Your task to perform on an android device: Find coffee shops on Maps Image 0: 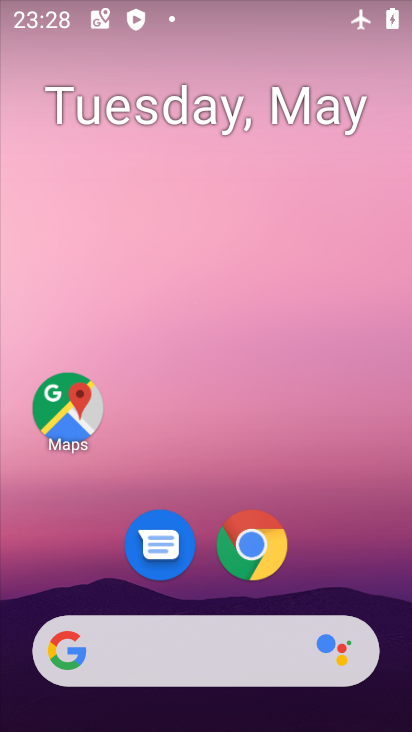
Step 0: click (66, 407)
Your task to perform on an android device: Find coffee shops on Maps Image 1: 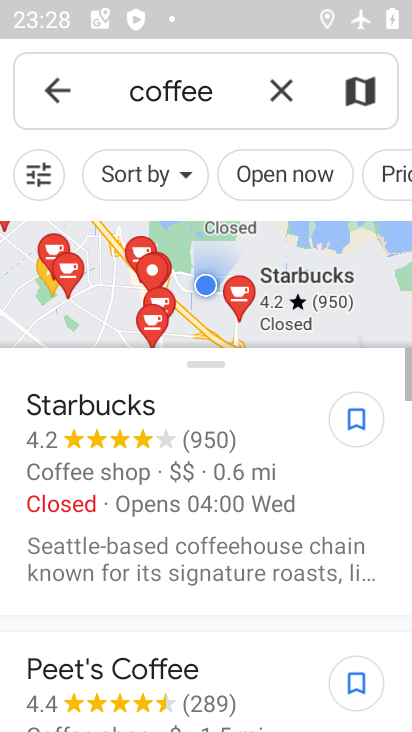
Step 1: click (266, 95)
Your task to perform on an android device: Find coffee shops on Maps Image 2: 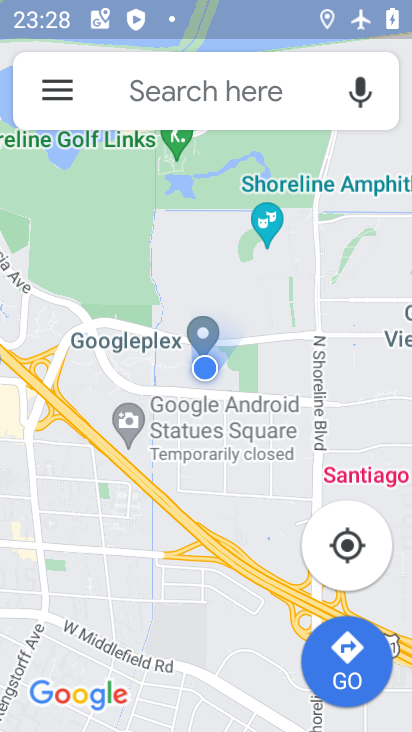
Step 2: type "coffee  shops"
Your task to perform on an android device: Find coffee shops on Maps Image 3: 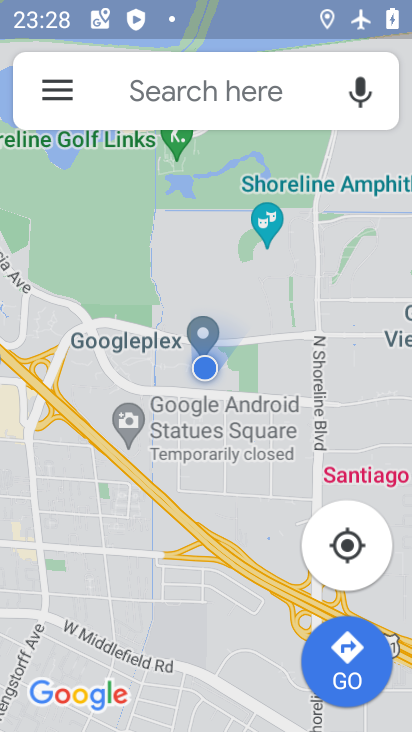
Step 3: click (219, 91)
Your task to perform on an android device: Find coffee shops on Maps Image 4: 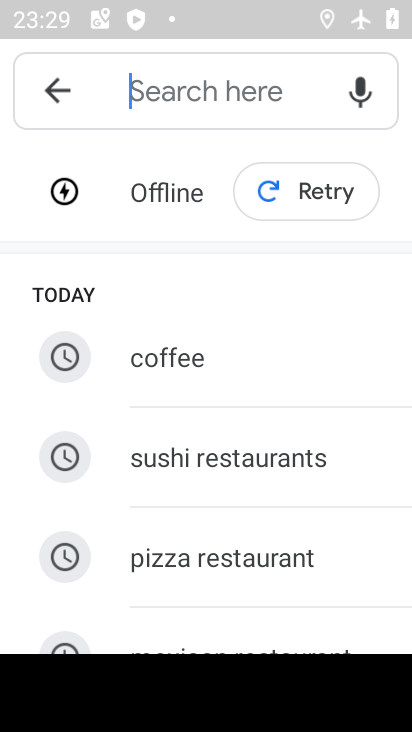
Step 4: type "coffee shops"
Your task to perform on an android device: Find coffee shops on Maps Image 5: 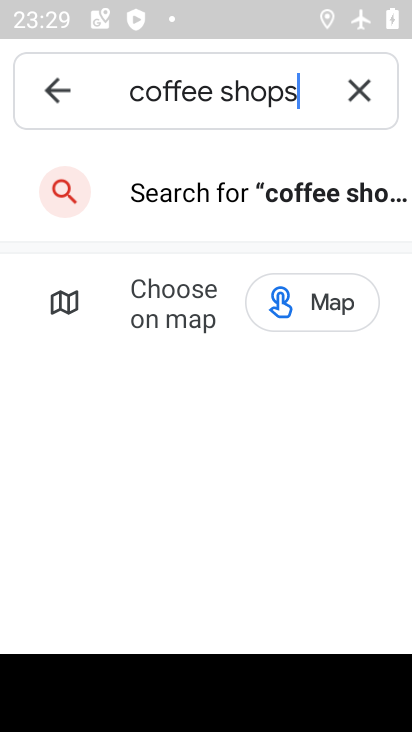
Step 5: click (320, 199)
Your task to perform on an android device: Find coffee shops on Maps Image 6: 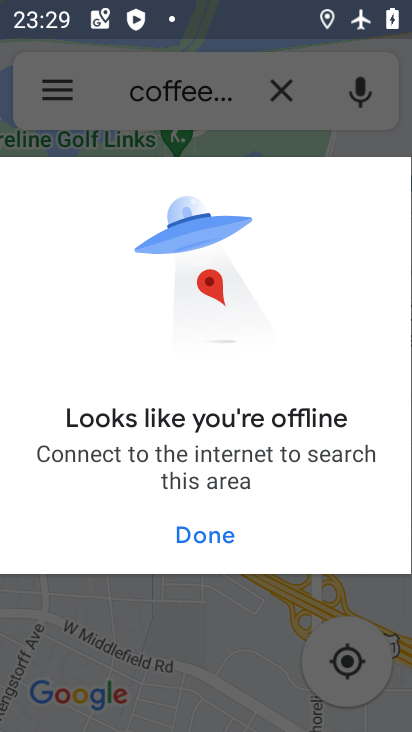
Step 6: task complete